Your task to perform on an android device: turn notification dots on Image 0: 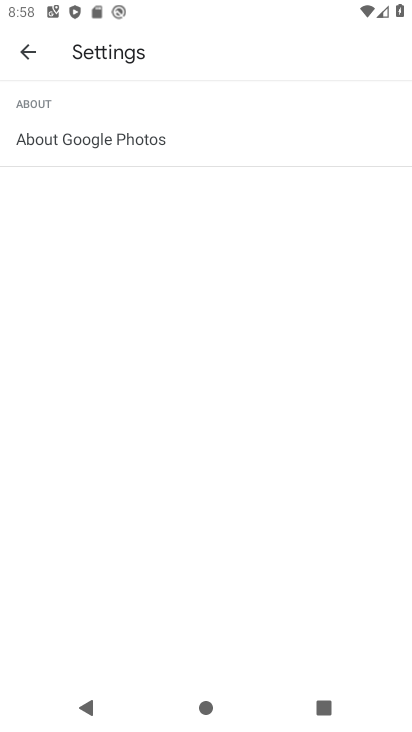
Step 0: press home button
Your task to perform on an android device: turn notification dots on Image 1: 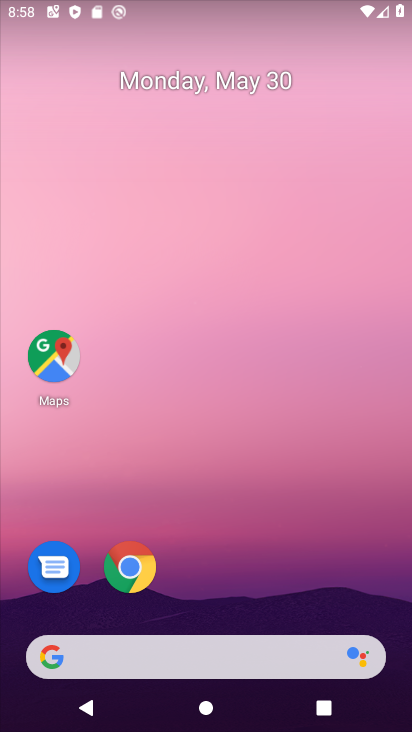
Step 1: drag from (202, 618) to (203, 117)
Your task to perform on an android device: turn notification dots on Image 2: 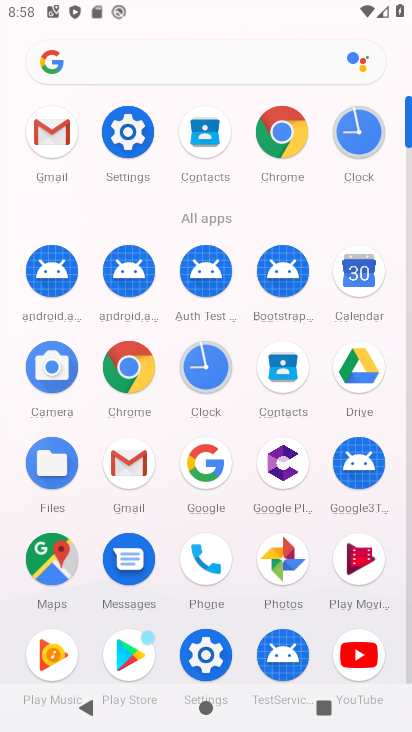
Step 2: click (136, 131)
Your task to perform on an android device: turn notification dots on Image 3: 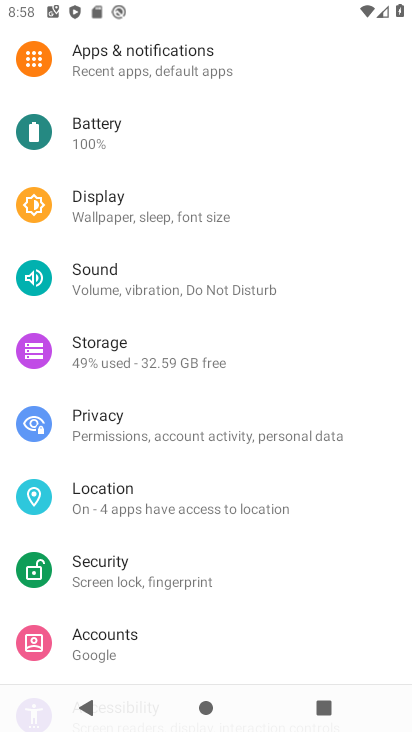
Step 3: click (165, 77)
Your task to perform on an android device: turn notification dots on Image 4: 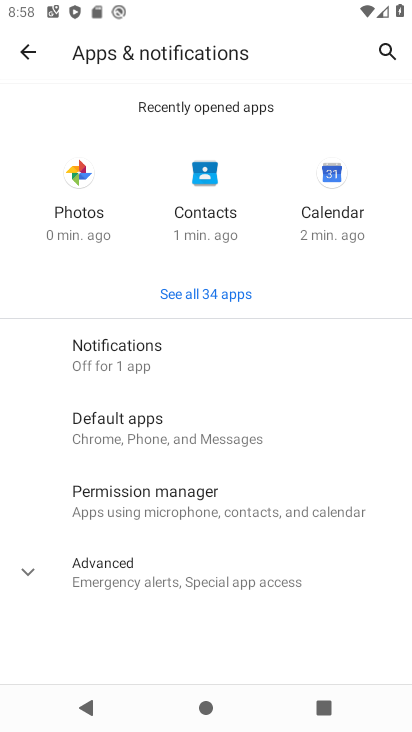
Step 4: click (135, 341)
Your task to perform on an android device: turn notification dots on Image 5: 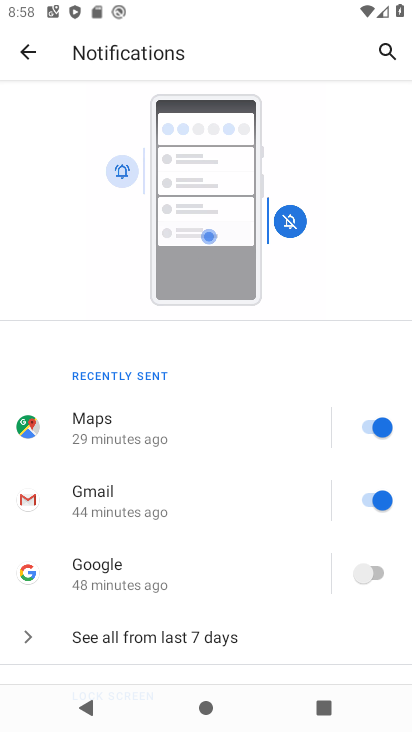
Step 5: drag from (208, 626) to (266, 138)
Your task to perform on an android device: turn notification dots on Image 6: 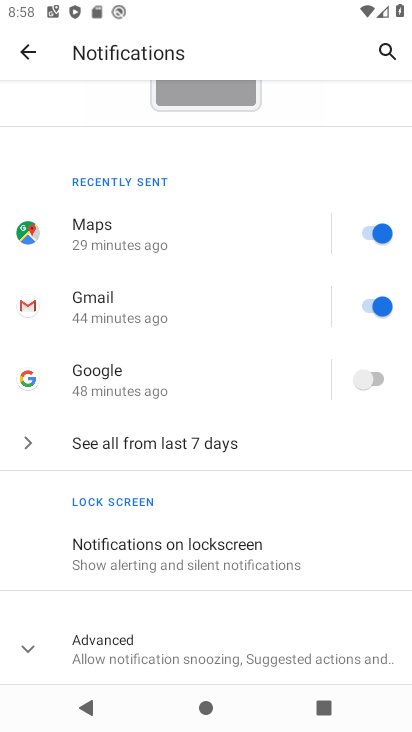
Step 6: click (142, 566)
Your task to perform on an android device: turn notification dots on Image 7: 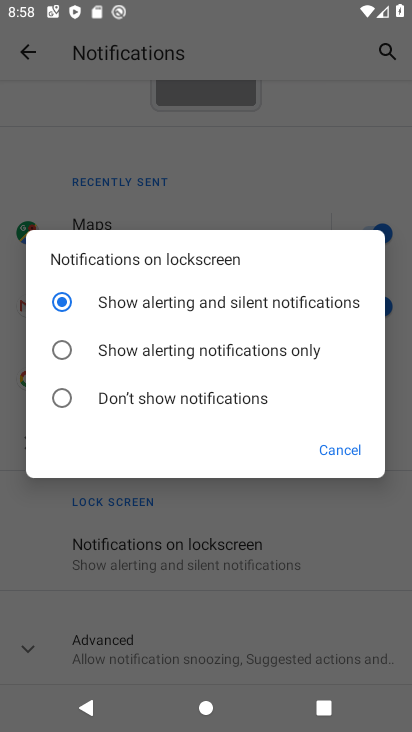
Step 7: click (338, 451)
Your task to perform on an android device: turn notification dots on Image 8: 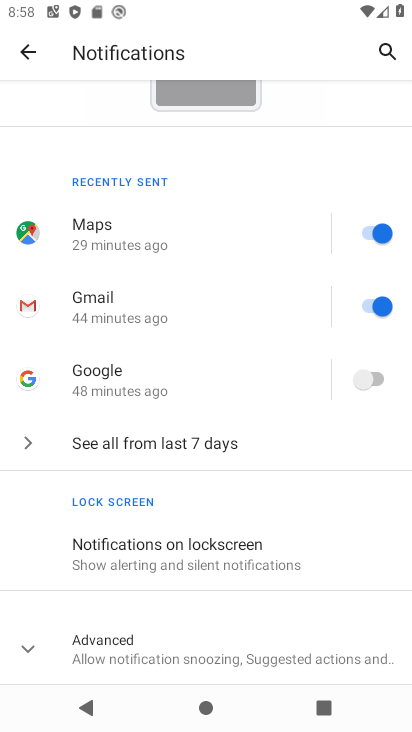
Step 8: click (138, 647)
Your task to perform on an android device: turn notification dots on Image 9: 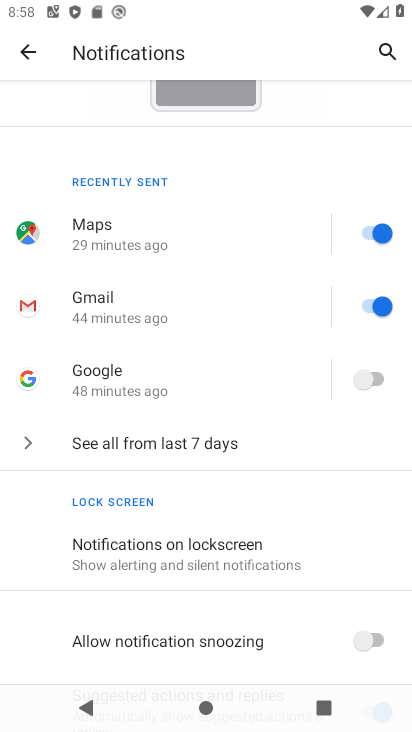
Step 9: task complete